Your task to perform on an android device: open chrome and create a bookmark for the current page Image 0: 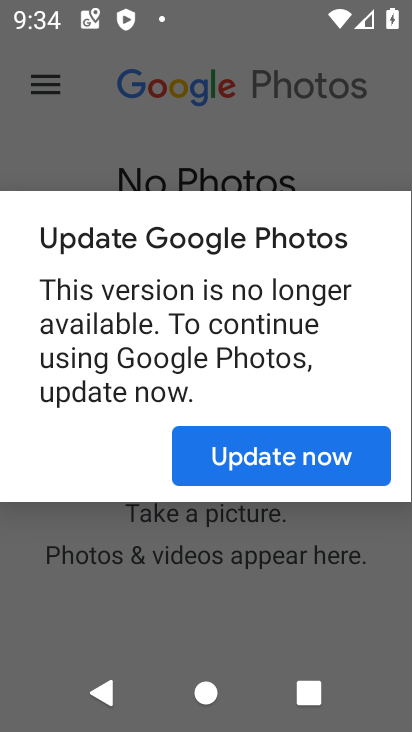
Step 0: press home button
Your task to perform on an android device: open chrome and create a bookmark for the current page Image 1: 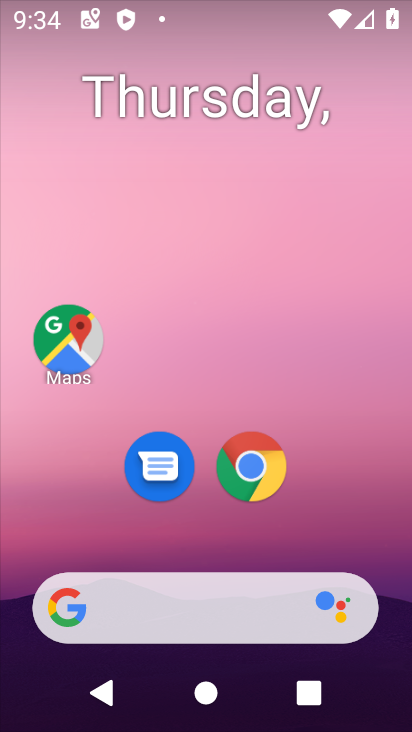
Step 1: drag from (321, 490) to (318, 109)
Your task to perform on an android device: open chrome and create a bookmark for the current page Image 2: 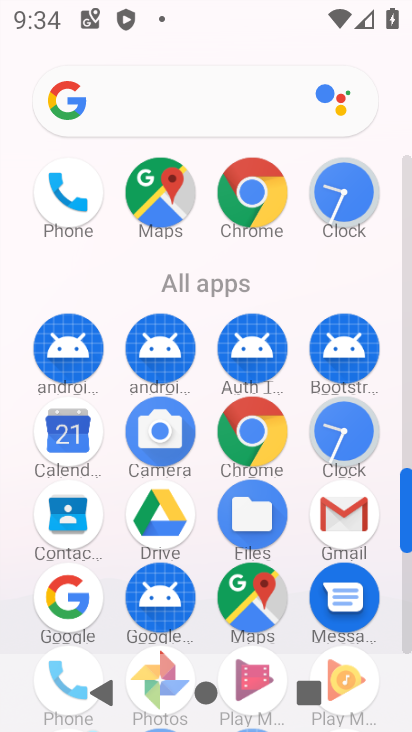
Step 2: click (253, 428)
Your task to perform on an android device: open chrome and create a bookmark for the current page Image 3: 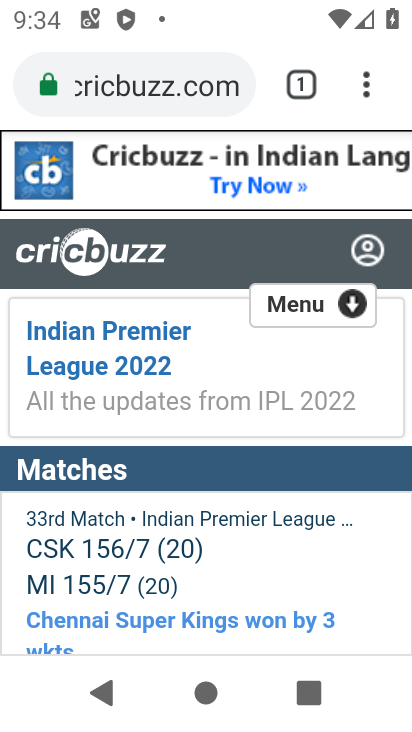
Step 3: click (191, 95)
Your task to perform on an android device: open chrome and create a bookmark for the current page Image 4: 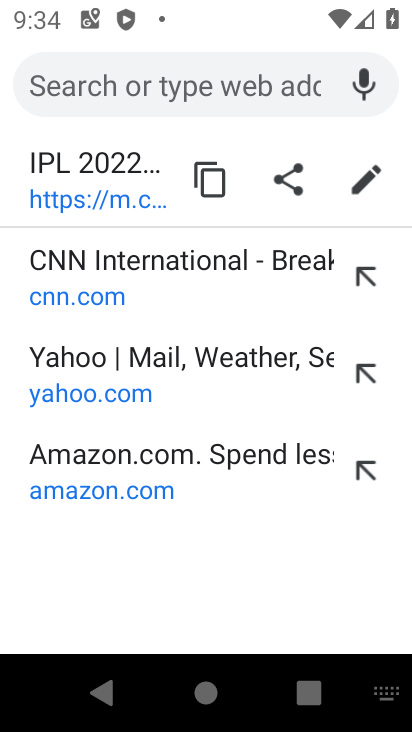
Step 4: type "new delhi"
Your task to perform on an android device: open chrome and create a bookmark for the current page Image 5: 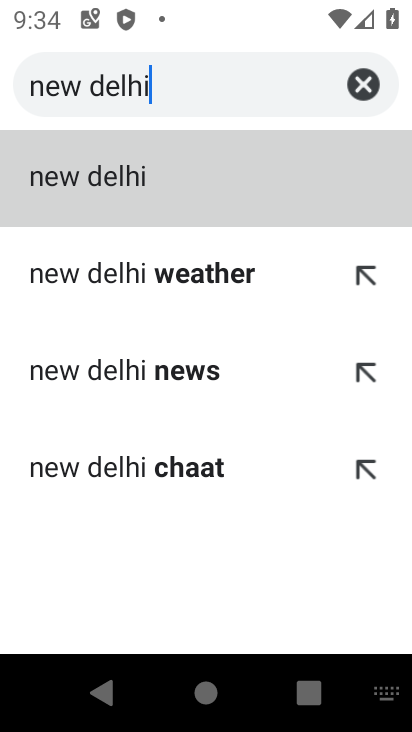
Step 5: click (112, 184)
Your task to perform on an android device: open chrome and create a bookmark for the current page Image 6: 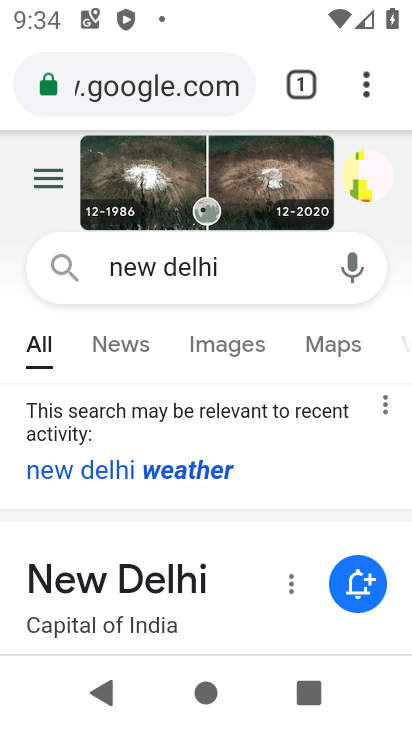
Step 6: drag from (169, 518) to (206, 239)
Your task to perform on an android device: open chrome and create a bookmark for the current page Image 7: 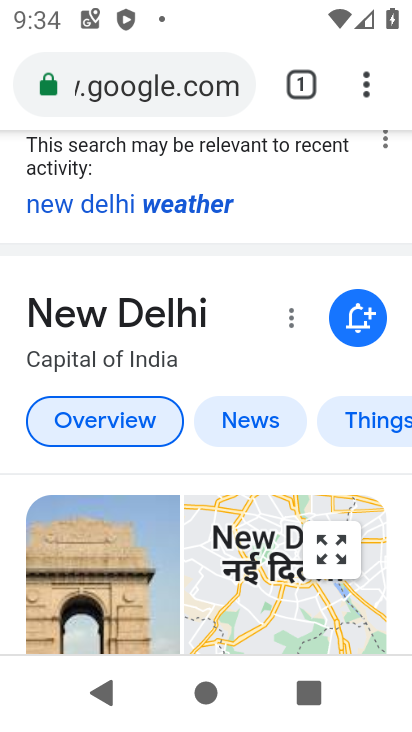
Step 7: drag from (145, 526) to (182, 347)
Your task to perform on an android device: open chrome and create a bookmark for the current page Image 8: 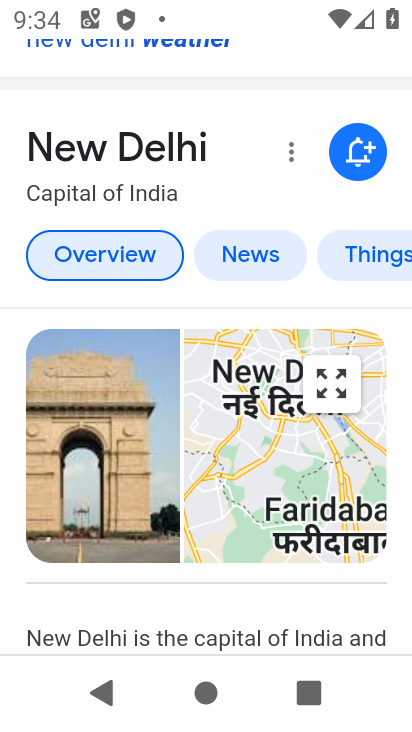
Step 8: drag from (149, 610) to (201, 284)
Your task to perform on an android device: open chrome and create a bookmark for the current page Image 9: 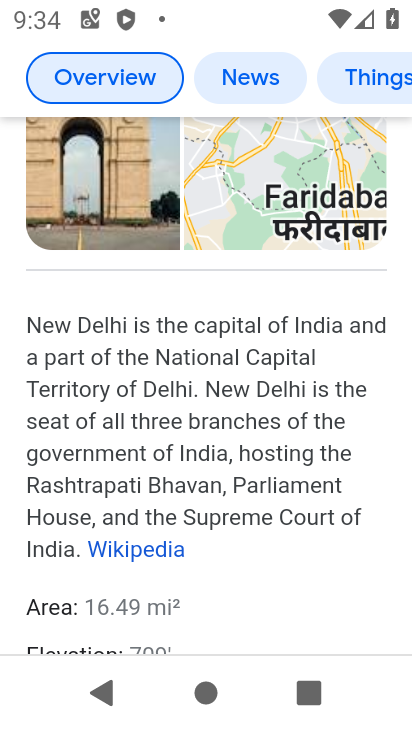
Step 9: drag from (204, 559) to (244, 321)
Your task to perform on an android device: open chrome and create a bookmark for the current page Image 10: 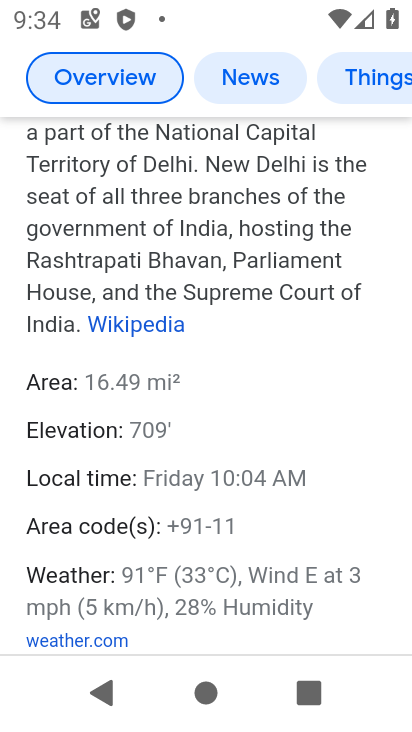
Step 10: drag from (214, 564) to (266, 338)
Your task to perform on an android device: open chrome and create a bookmark for the current page Image 11: 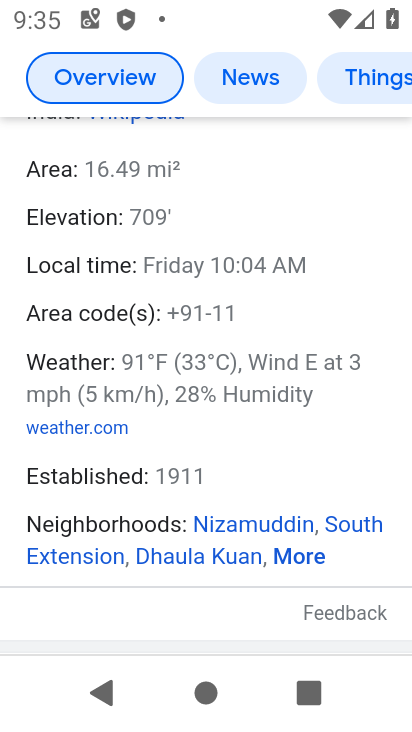
Step 11: drag from (152, 584) to (224, 278)
Your task to perform on an android device: open chrome and create a bookmark for the current page Image 12: 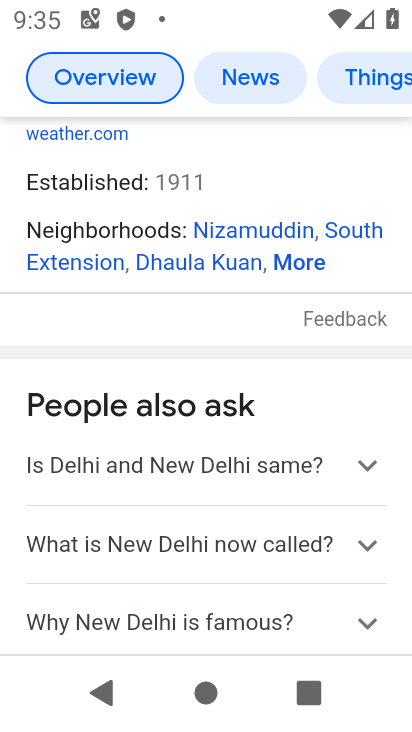
Step 12: click (153, 465)
Your task to perform on an android device: open chrome and create a bookmark for the current page Image 13: 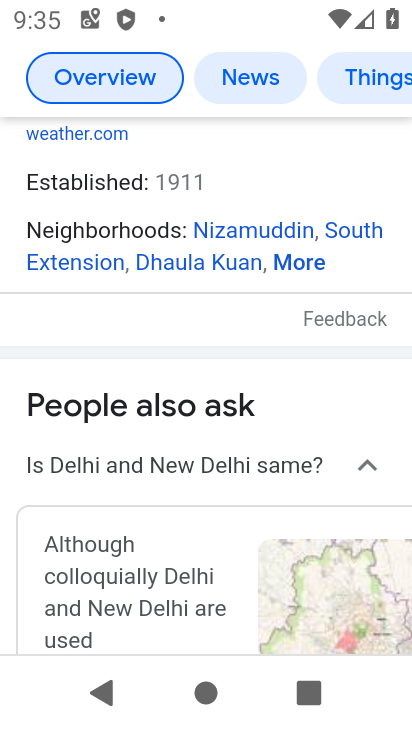
Step 13: click (207, 224)
Your task to perform on an android device: open chrome and create a bookmark for the current page Image 14: 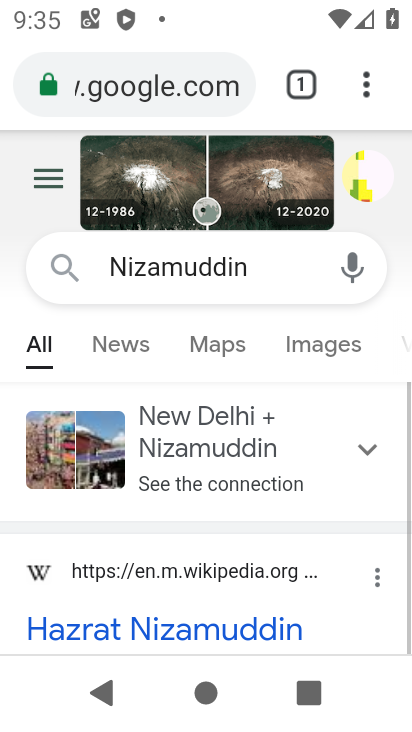
Step 14: click (366, 92)
Your task to perform on an android device: open chrome and create a bookmark for the current page Image 15: 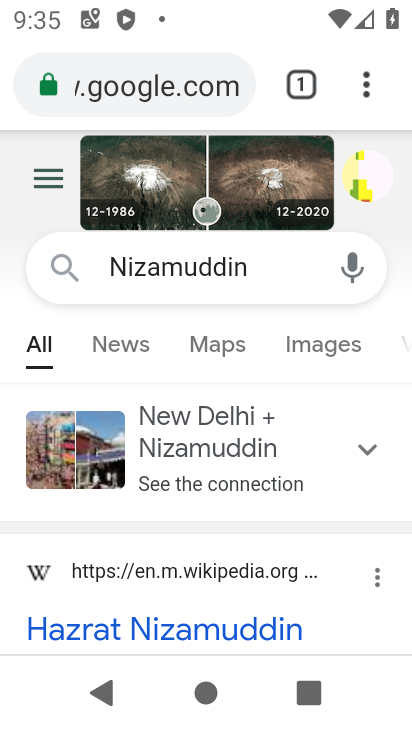
Step 15: task complete